Your task to perform on an android device: move a message to another label in the gmail app Image 0: 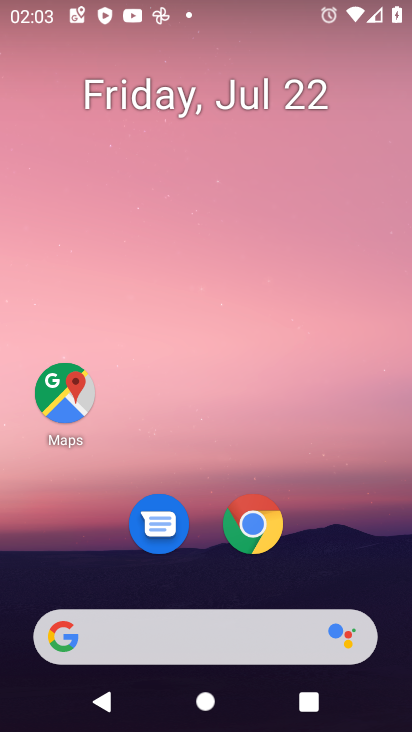
Step 0: press home button
Your task to perform on an android device: move a message to another label in the gmail app Image 1: 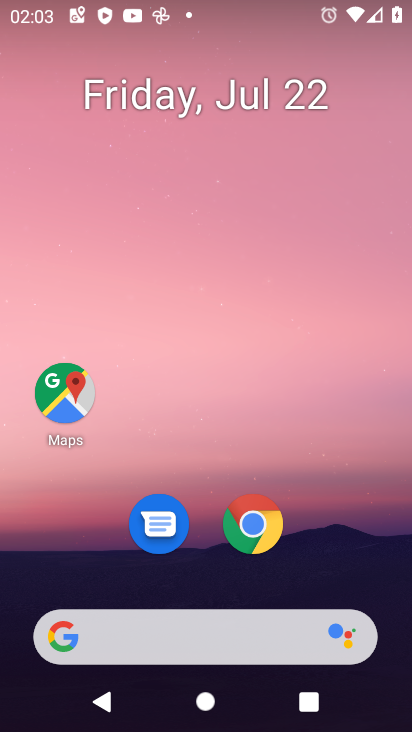
Step 1: drag from (168, 646) to (248, 26)
Your task to perform on an android device: move a message to another label in the gmail app Image 2: 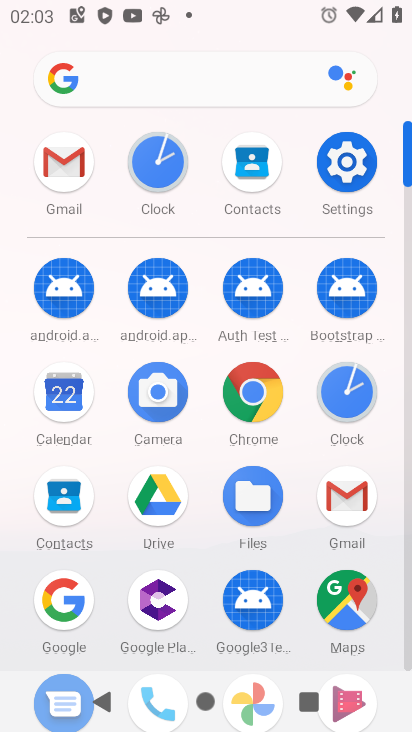
Step 2: click (64, 158)
Your task to perform on an android device: move a message to another label in the gmail app Image 3: 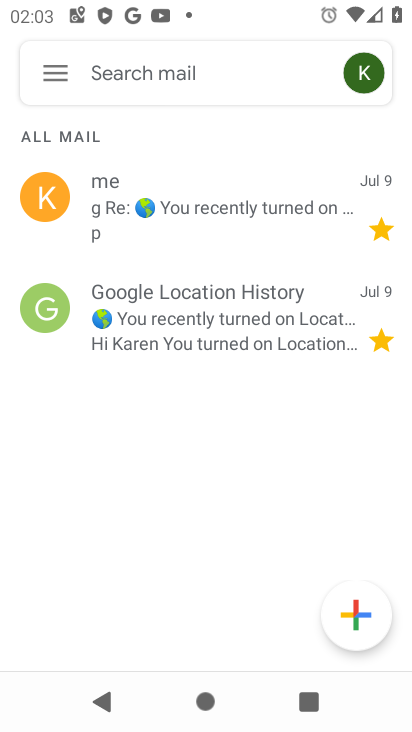
Step 3: click (161, 202)
Your task to perform on an android device: move a message to another label in the gmail app Image 4: 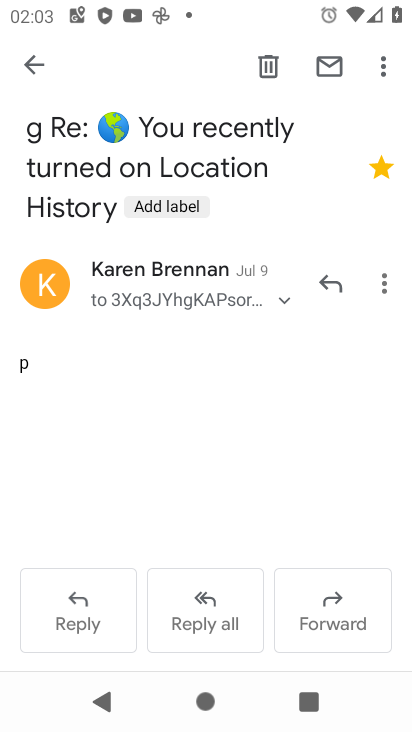
Step 4: click (167, 208)
Your task to perform on an android device: move a message to another label in the gmail app Image 5: 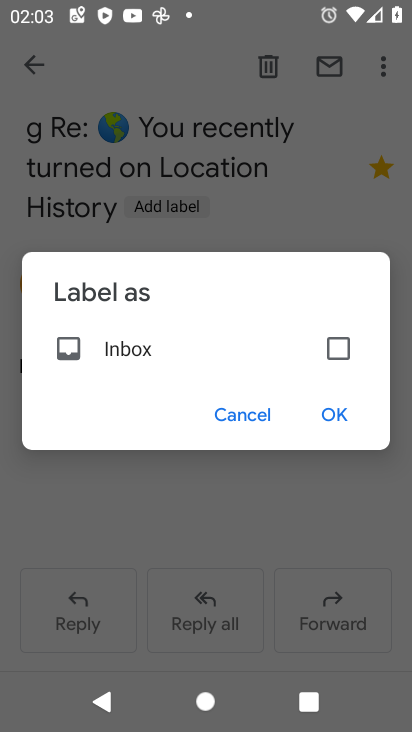
Step 5: click (334, 345)
Your task to perform on an android device: move a message to another label in the gmail app Image 6: 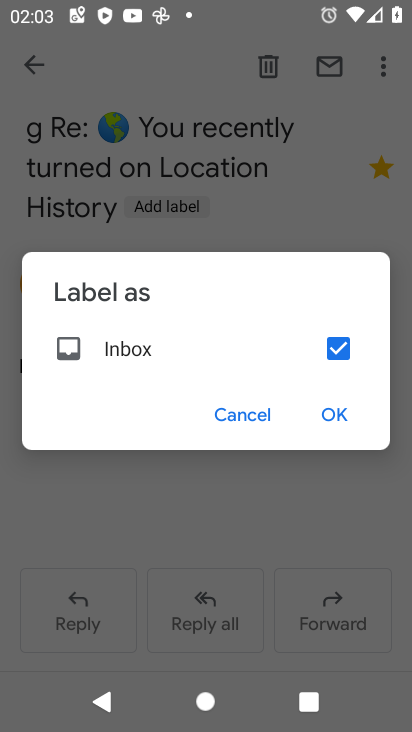
Step 6: click (334, 414)
Your task to perform on an android device: move a message to another label in the gmail app Image 7: 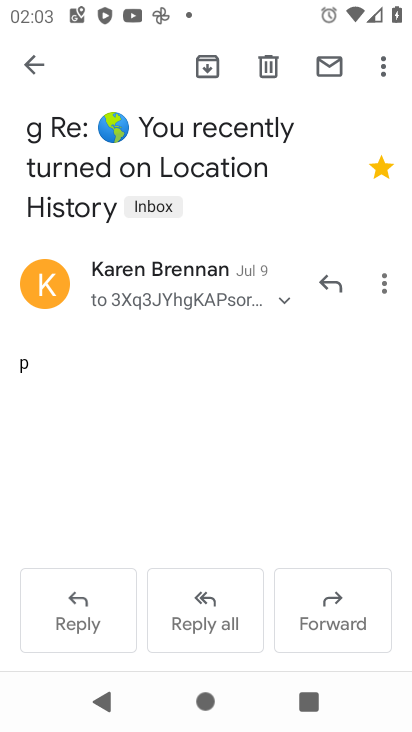
Step 7: task complete